Your task to perform on an android device: What's the weather today? Image 0: 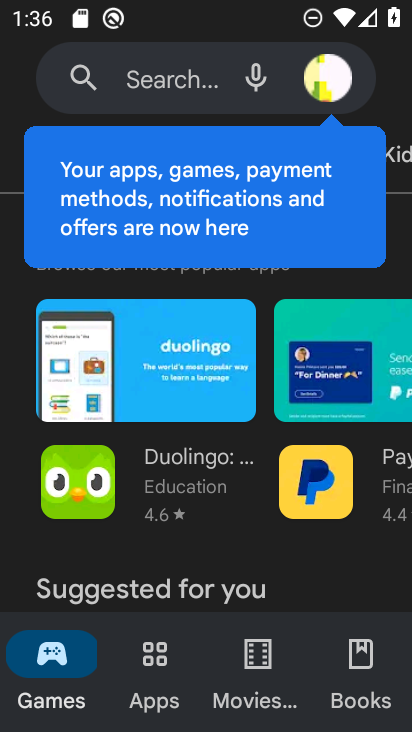
Step 0: press back button
Your task to perform on an android device: What's the weather today? Image 1: 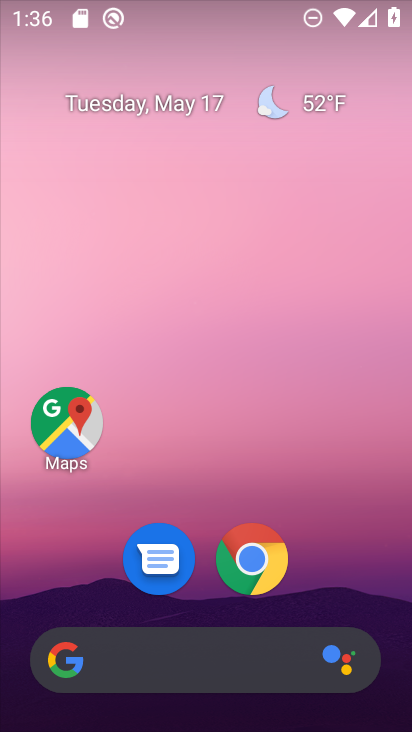
Step 1: drag from (348, 557) to (310, 74)
Your task to perform on an android device: What's the weather today? Image 2: 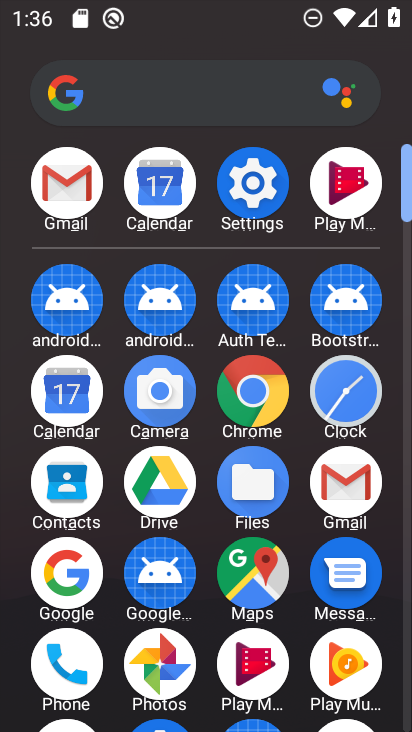
Step 2: drag from (214, 457) to (196, 296)
Your task to perform on an android device: What's the weather today? Image 3: 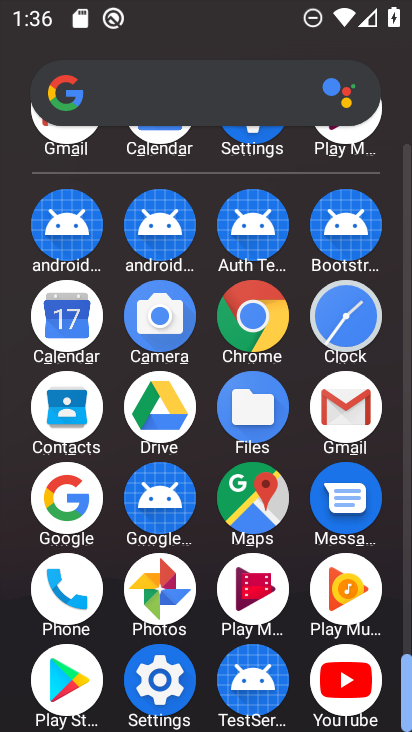
Step 3: click (59, 495)
Your task to perform on an android device: What's the weather today? Image 4: 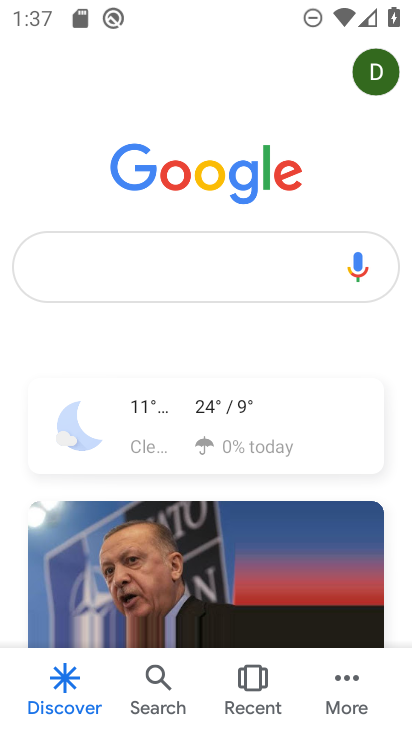
Step 4: click (251, 436)
Your task to perform on an android device: What's the weather today? Image 5: 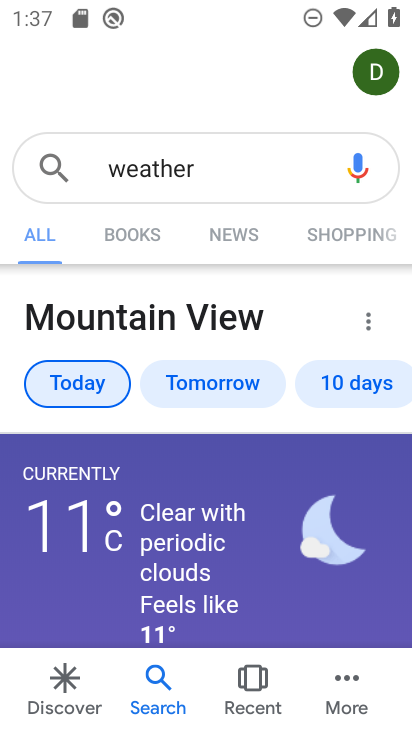
Step 5: task complete